Your task to perform on an android device: Go to calendar. Show me events next week Image 0: 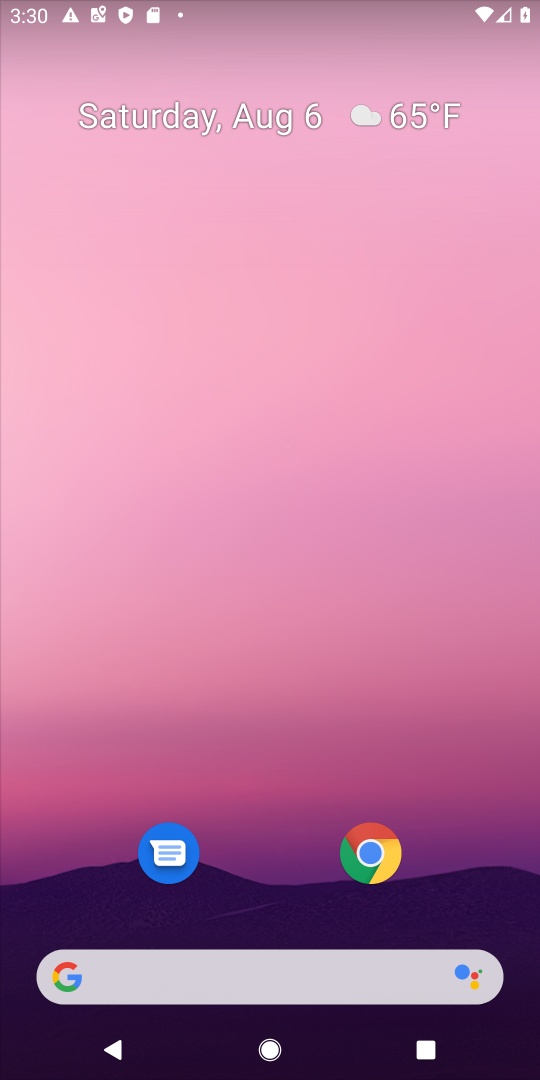
Step 0: drag from (272, 720) to (362, 190)
Your task to perform on an android device: Go to calendar. Show me events next week Image 1: 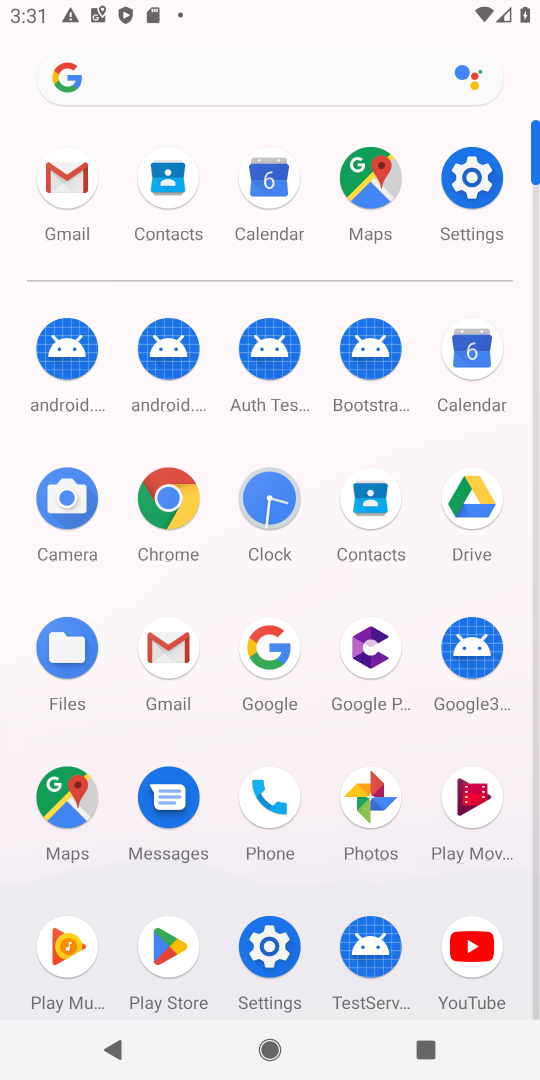
Step 1: click (481, 376)
Your task to perform on an android device: Go to calendar. Show me events next week Image 2: 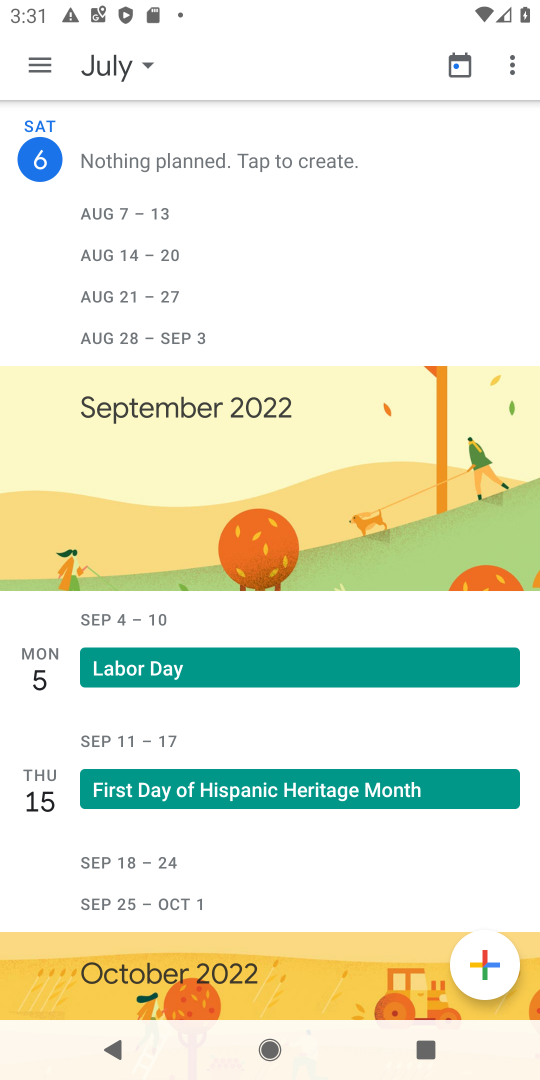
Step 2: click (131, 67)
Your task to perform on an android device: Go to calendar. Show me events next week Image 3: 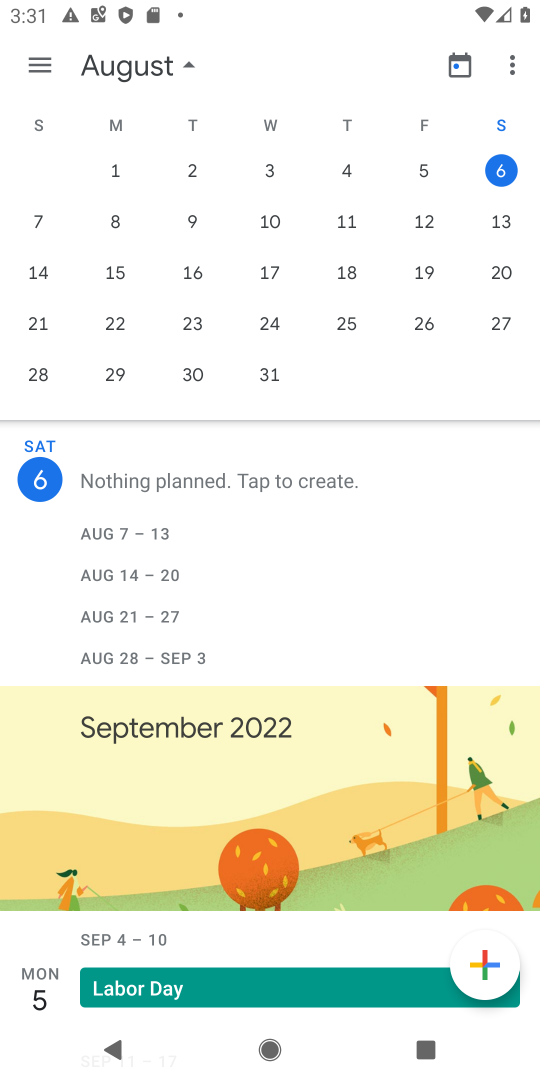
Step 3: task complete